Your task to perform on an android device: turn off picture-in-picture Image 0: 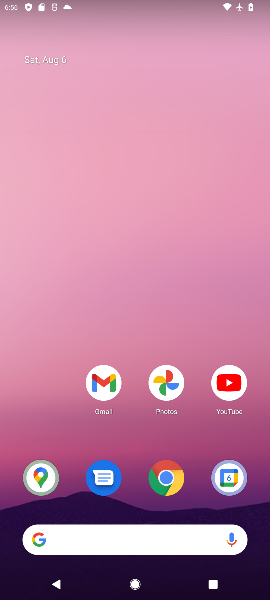
Step 0: press home button
Your task to perform on an android device: turn off picture-in-picture Image 1: 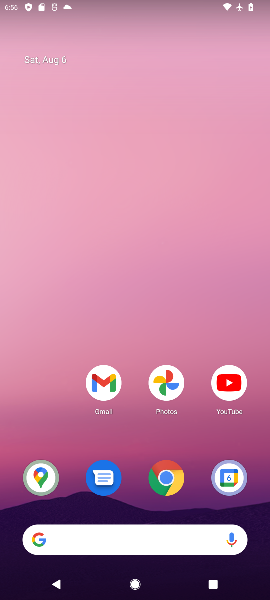
Step 1: click (173, 480)
Your task to perform on an android device: turn off picture-in-picture Image 2: 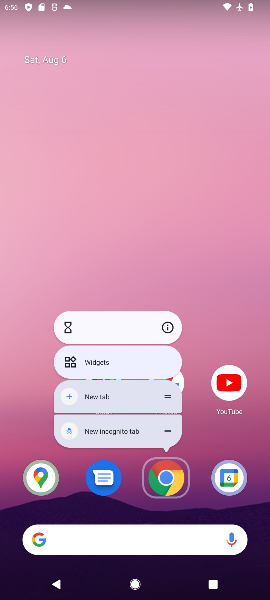
Step 2: click (167, 328)
Your task to perform on an android device: turn off picture-in-picture Image 3: 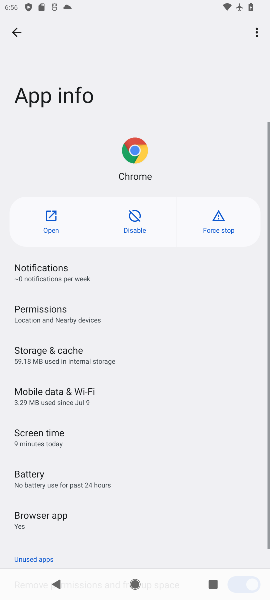
Step 3: drag from (172, 534) to (169, 268)
Your task to perform on an android device: turn off picture-in-picture Image 4: 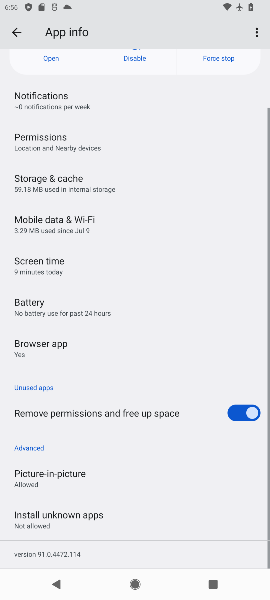
Step 4: drag from (114, 499) to (118, 219)
Your task to perform on an android device: turn off picture-in-picture Image 5: 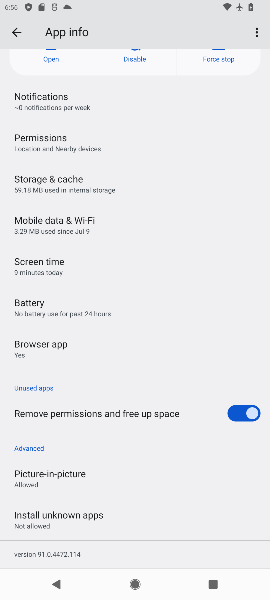
Step 5: click (33, 483)
Your task to perform on an android device: turn off picture-in-picture Image 6: 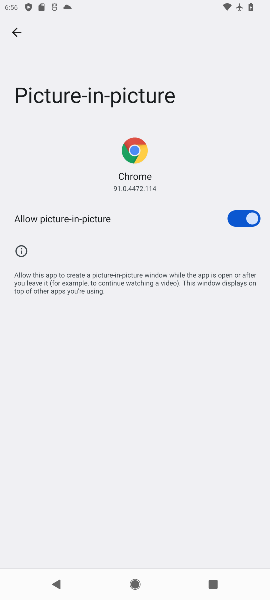
Step 6: click (243, 218)
Your task to perform on an android device: turn off picture-in-picture Image 7: 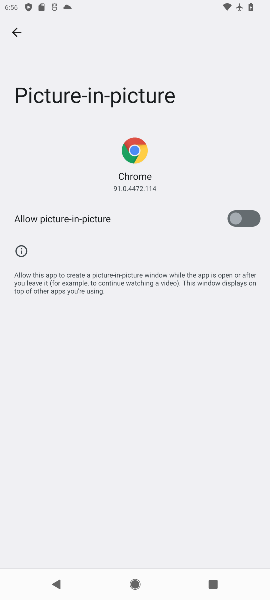
Step 7: task complete